Your task to perform on an android device: move an email to a new category in the gmail app Image 0: 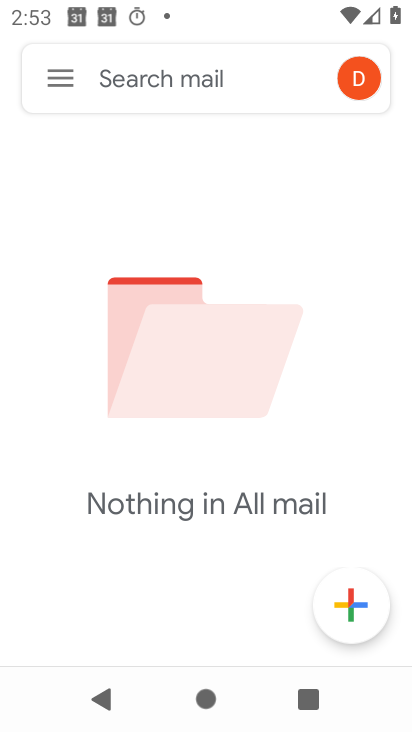
Step 0: press home button
Your task to perform on an android device: move an email to a new category in the gmail app Image 1: 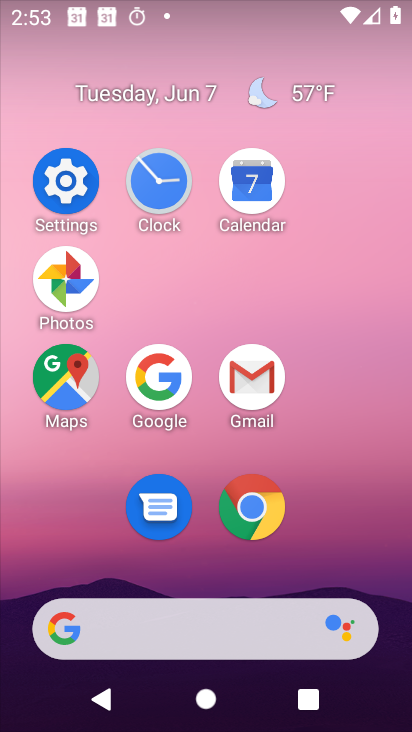
Step 1: click (257, 373)
Your task to perform on an android device: move an email to a new category in the gmail app Image 2: 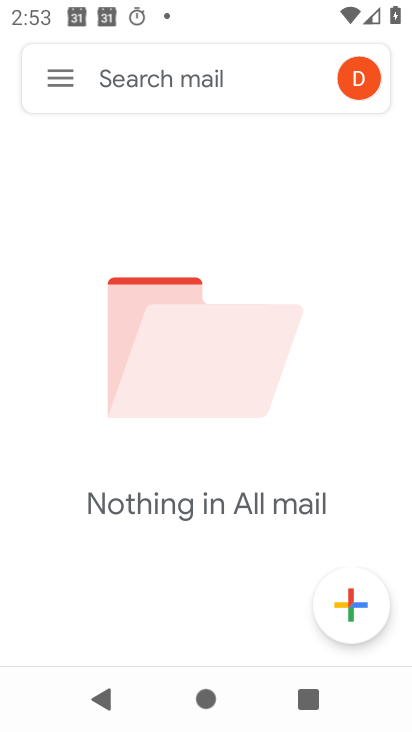
Step 2: click (72, 75)
Your task to perform on an android device: move an email to a new category in the gmail app Image 3: 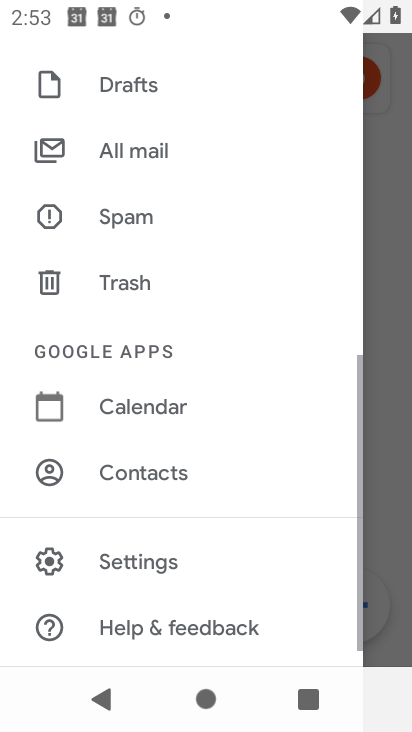
Step 3: click (191, 143)
Your task to perform on an android device: move an email to a new category in the gmail app Image 4: 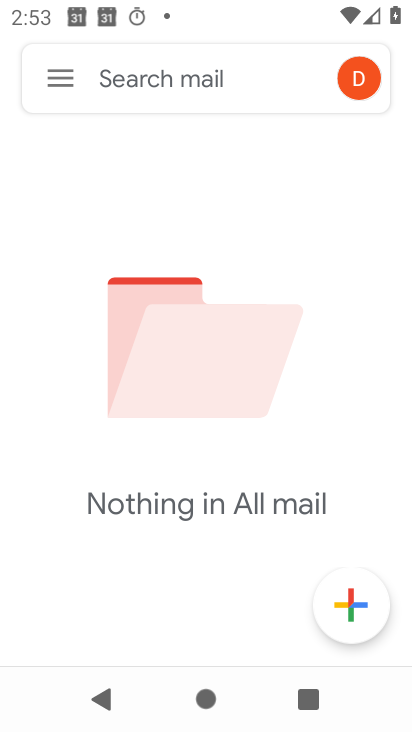
Step 4: task complete